Your task to perform on an android device: Is it going to rain this weekend? Image 0: 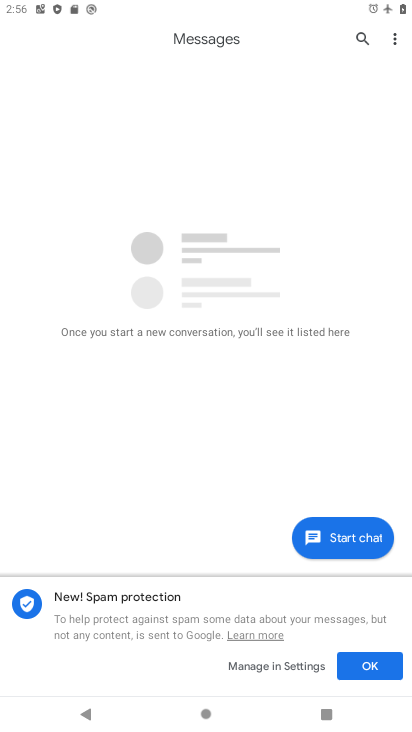
Step 0: press home button
Your task to perform on an android device: Is it going to rain this weekend? Image 1: 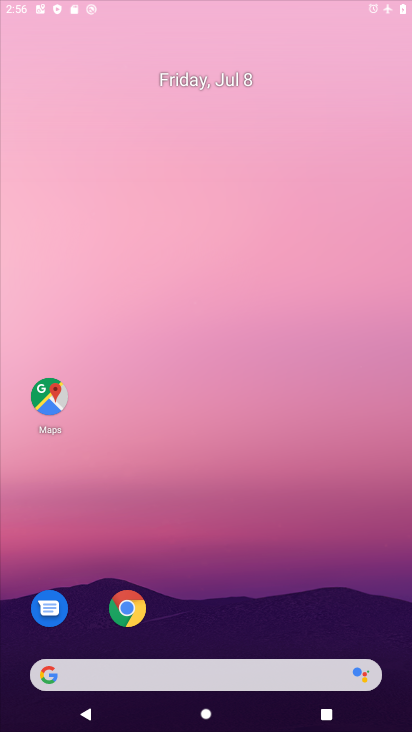
Step 1: drag from (318, 619) to (347, 15)
Your task to perform on an android device: Is it going to rain this weekend? Image 2: 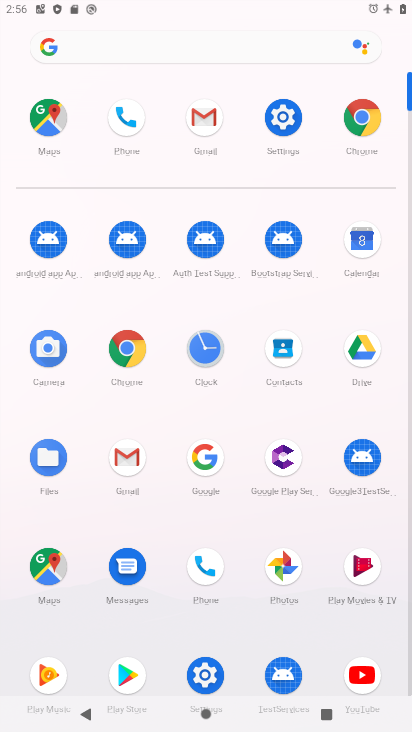
Step 2: click (213, 450)
Your task to perform on an android device: Is it going to rain this weekend? Image 3: 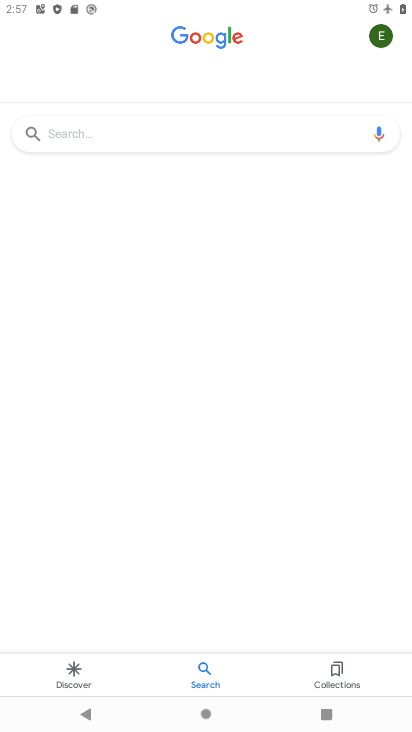
Step 3: click (176, 130)
Your task to perform on an android device: Is it going to rain this weekend? Image 4: 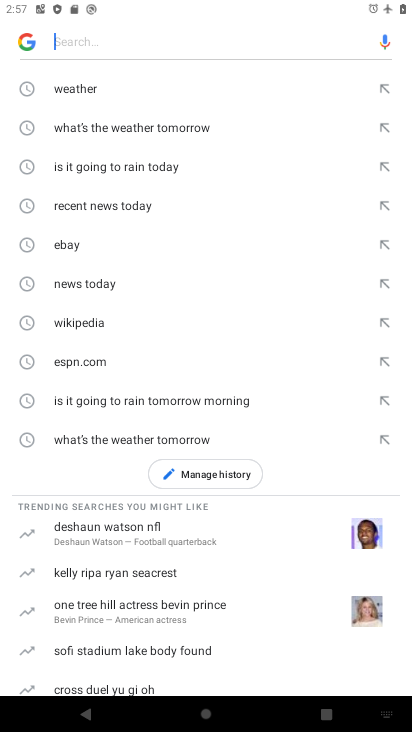
Step 4: click (87, 120)
Your task to perform on an android device: Is it going to rain this weekend? Image 5: 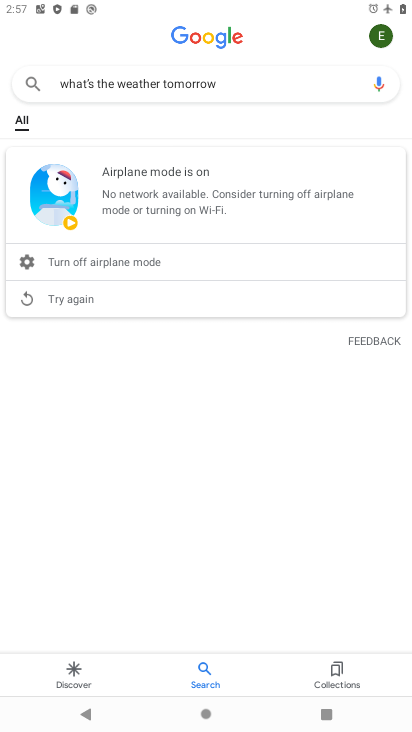
Step 5: task complete